Your task to perform on an android device: Open notification settings Image 0: 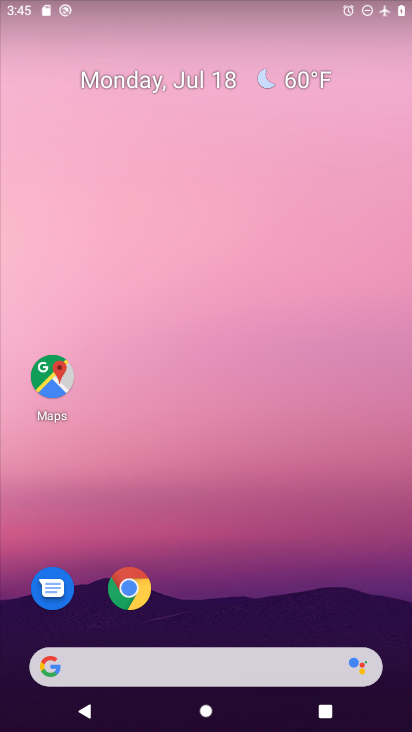
Step 0: drag from (189, 620) to (191, 204)
Your task to perform on an android device: Open notification settings Image 1: 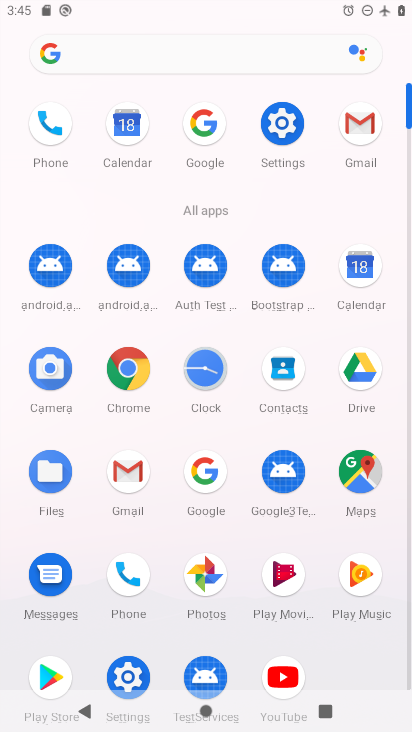
Step 1: click (281, 115)
Your task to perform on an android device: Open notification settings Image 2: 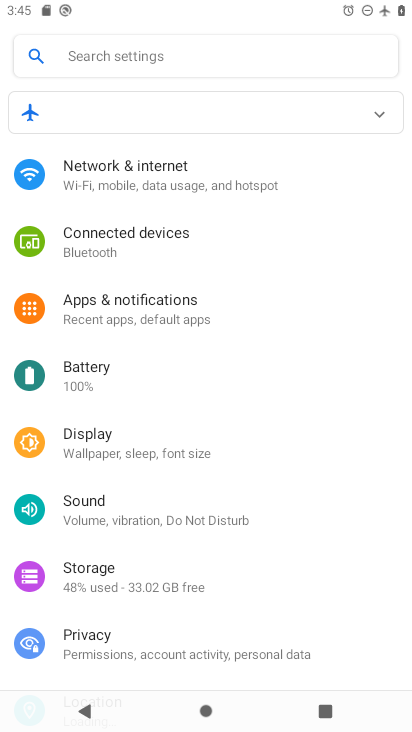
Step 2: click (150, 307)
Your task to perform on an android device: Open notification settings Image 3: 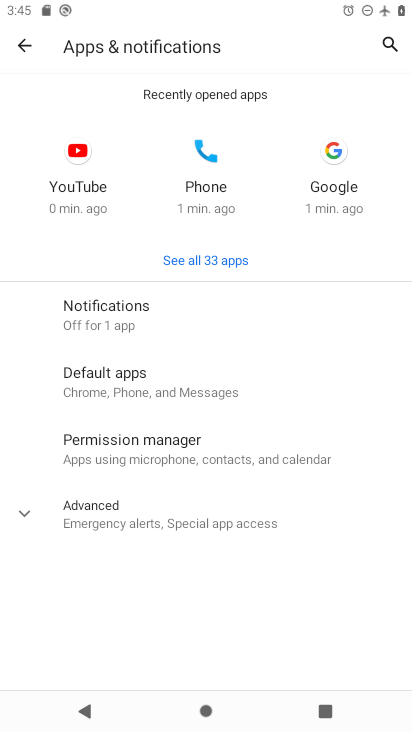
Step 3: click (143, 325)
Your task to perform on an android device: Open notification settings Image 4: 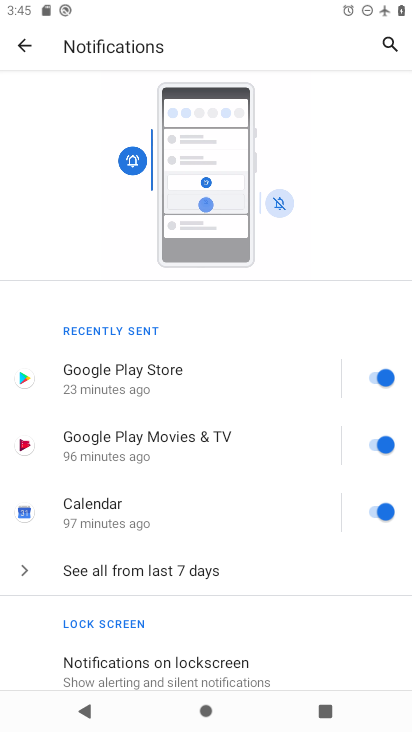
Step 4: drag from (180, 607) to (174, 303)
Your task to perform on an android device: Open notification settings Image 5: 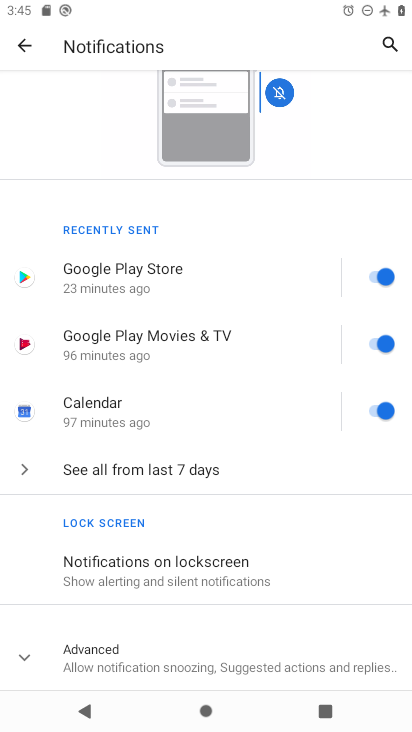
Step 5: click (86, 664)
Your task to perform on an android device: Open notification settings Image 6: 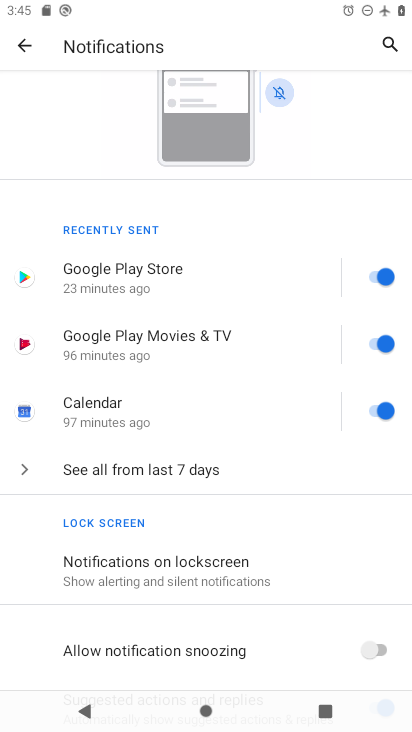
Step 6: task complete